Your task to perform on an android device: What time is it? Image 0: 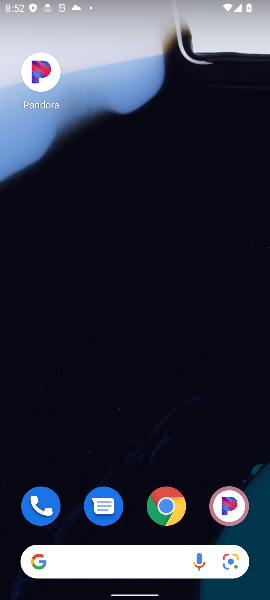
Step 0: click (163, 506)
Your task to perform on an android device: What time is it? Image 1: 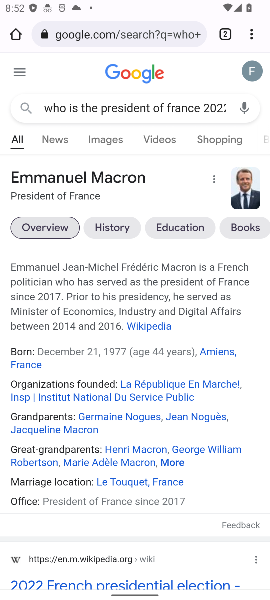
Step 1: click (164, 26)
Your task to perform on an android device: What time is it? Image 2: 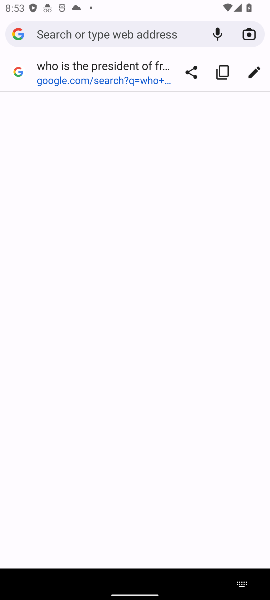
Step 2: type "What time is it"
Your task to perform on an android device: What time is it? Image 3: 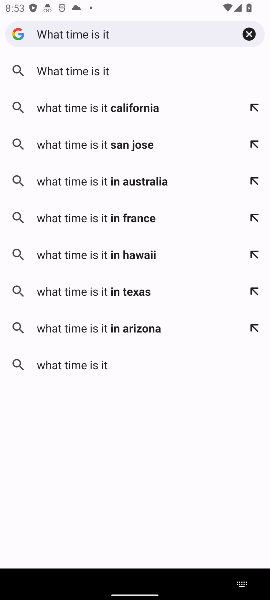
Step 3: click (104, 68)
Your task to perform on an android device: What time is it? Image 4: 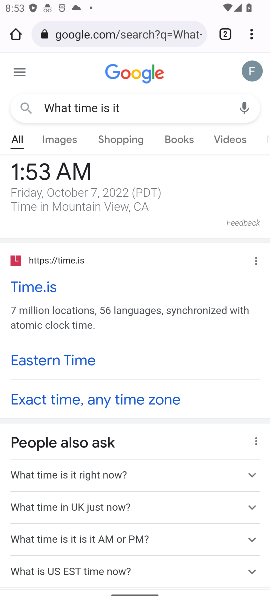
Step 4: task complete